Your task to perform on an android device: Open settings on Google Maps Image 0: 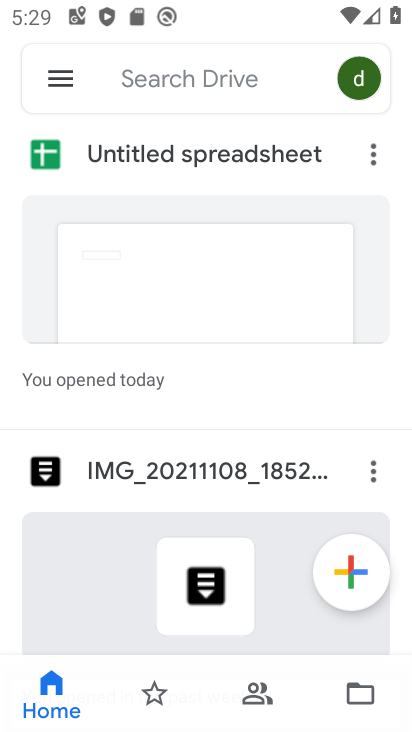
Step 0: press home button
Your task to perform on an android device: Open settings on Google Maps Image 1: 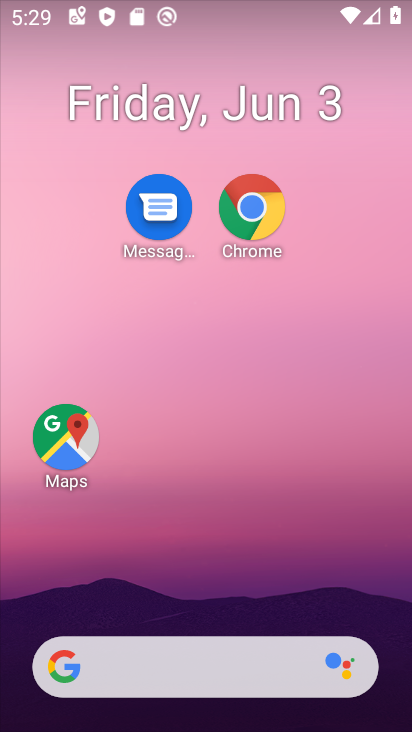
Step 1: click (53, 456)
Your task to perform on an android device: Open settings on Google Maps Image 2: 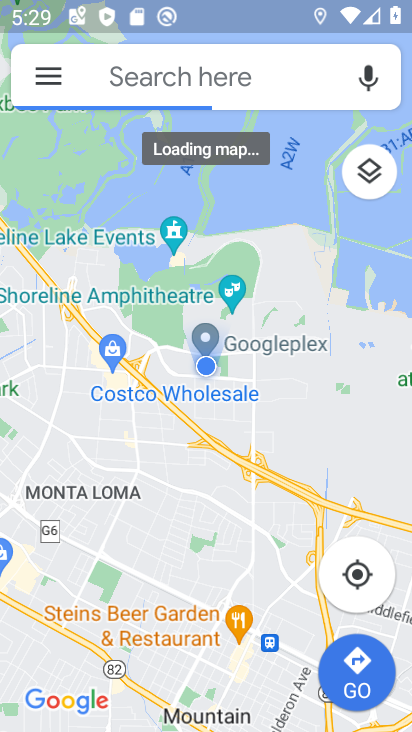
Step 2: task complete